Your task to perform on an android device: uninstall "Facebook Messenger" Image 0: 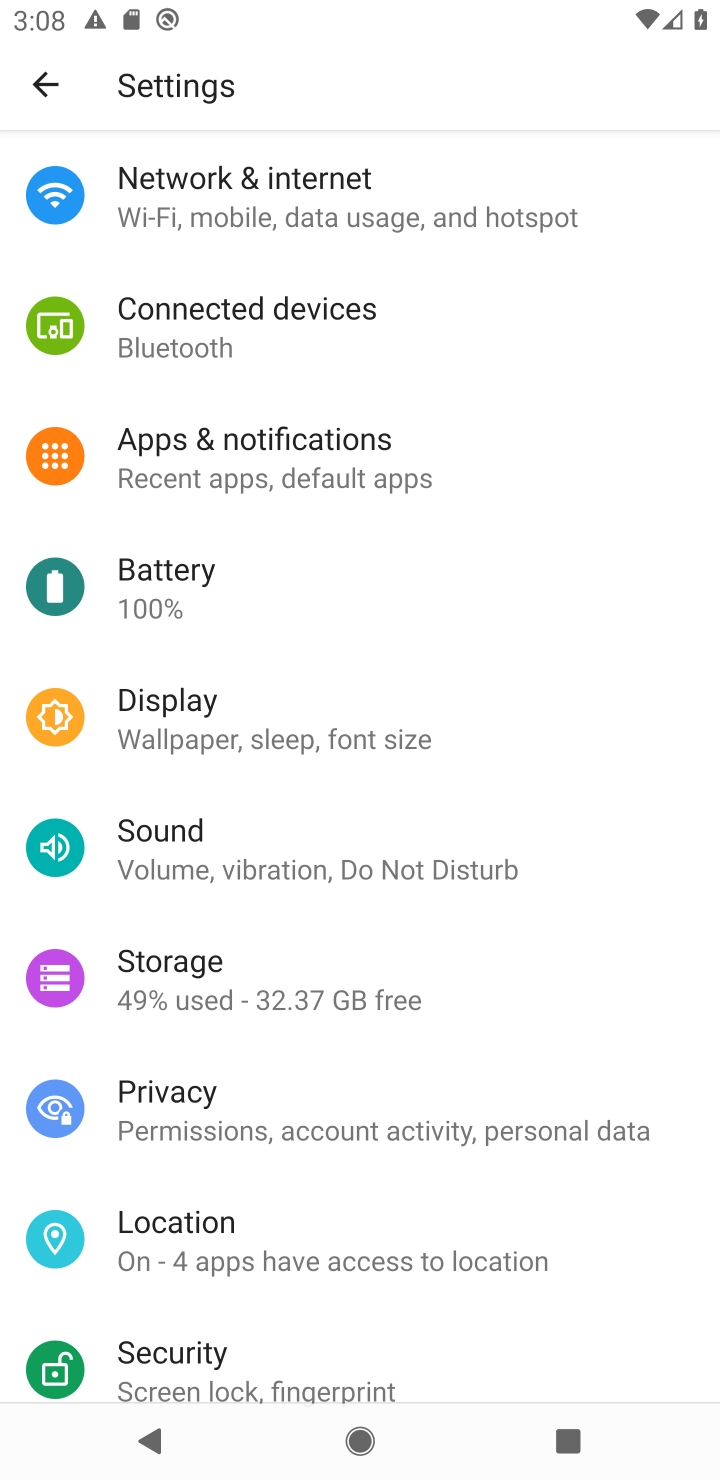
Step 0: click (35, 85)
Your task to perform on an android device: uninstall "Facebook Messenger" Image 1: 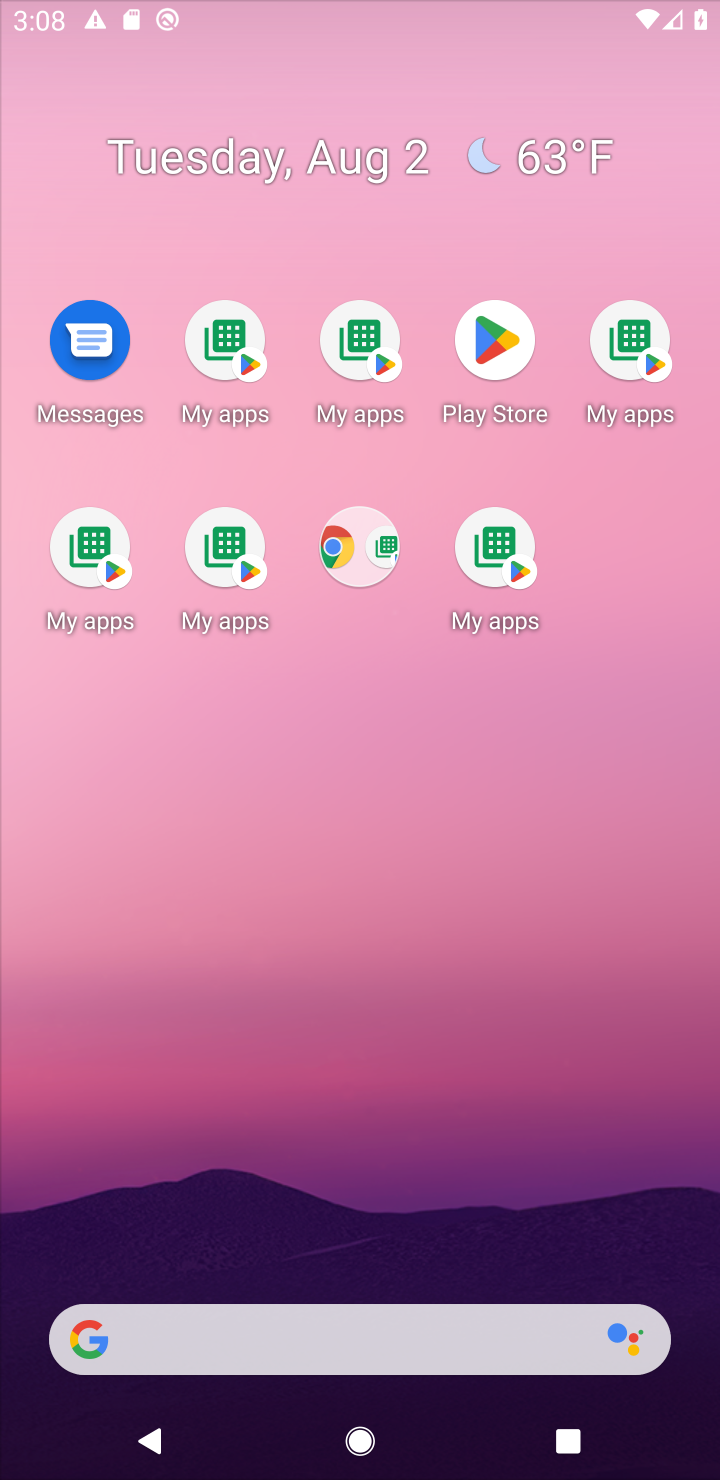
Step 1: drag from (190, 786) to (246, 374)
Your task to perform on an android device: uninstall "Facebook Messenger" Image 2: 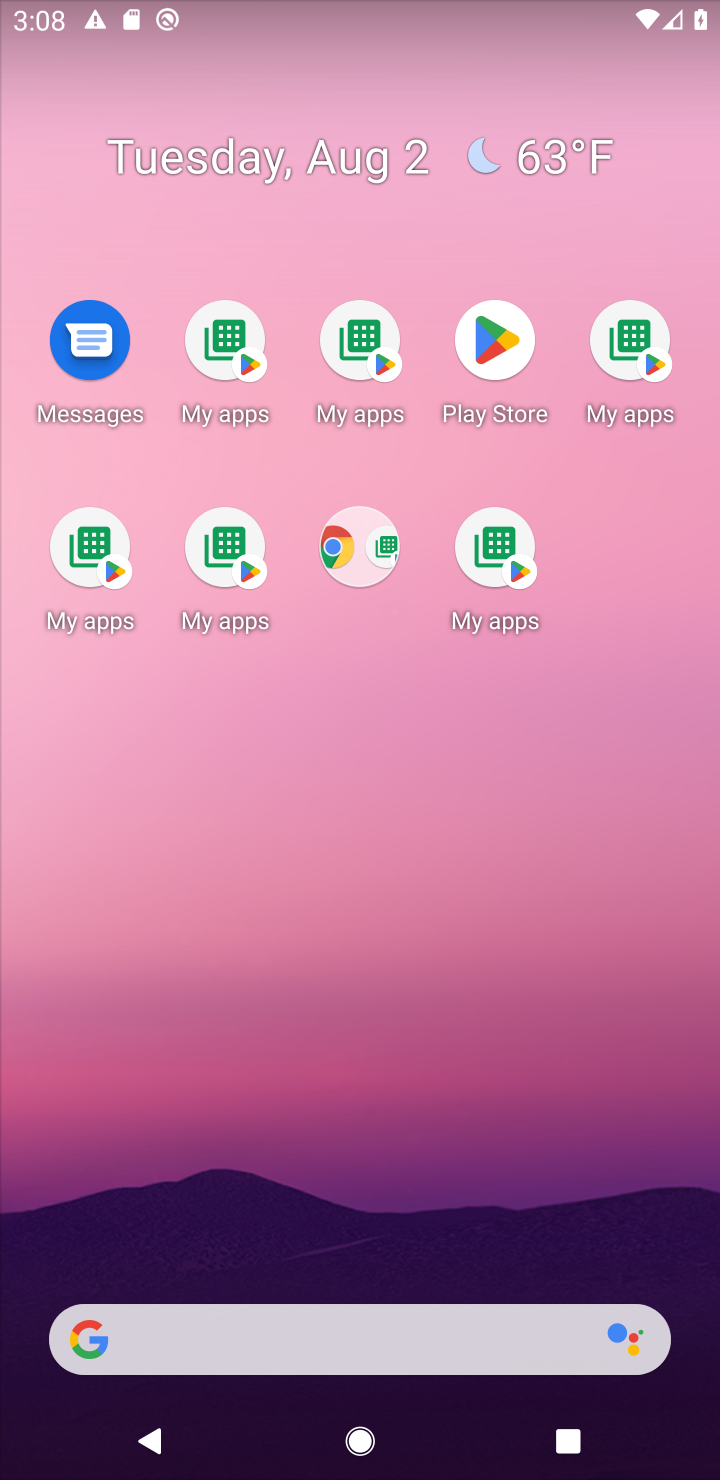
Step 2: click (365, 356)
Your task to perform on an android device: uninstall "Facebook Messenger" Image 3: 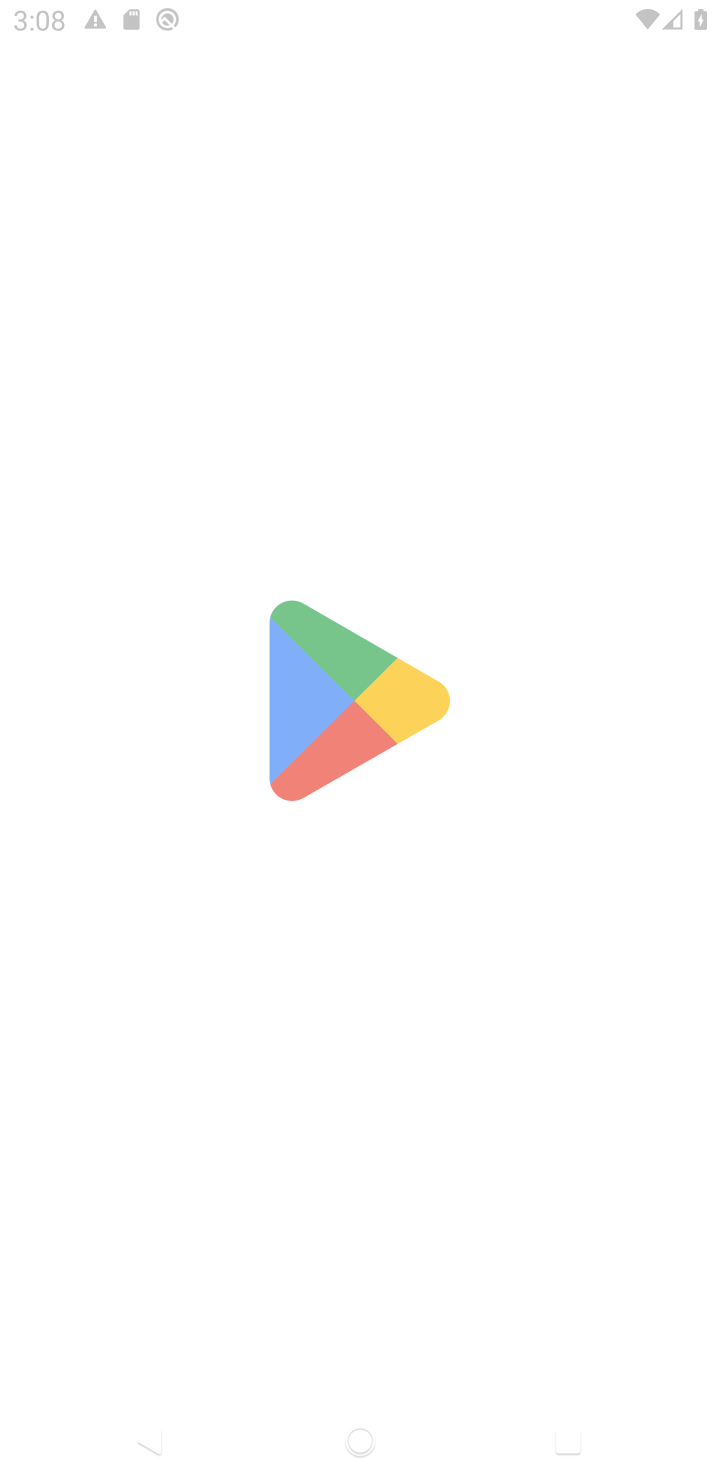
Step 3: click (495, 343)
Your task to perform on an android device: uninstall "Facebook Messenger" Image 4: 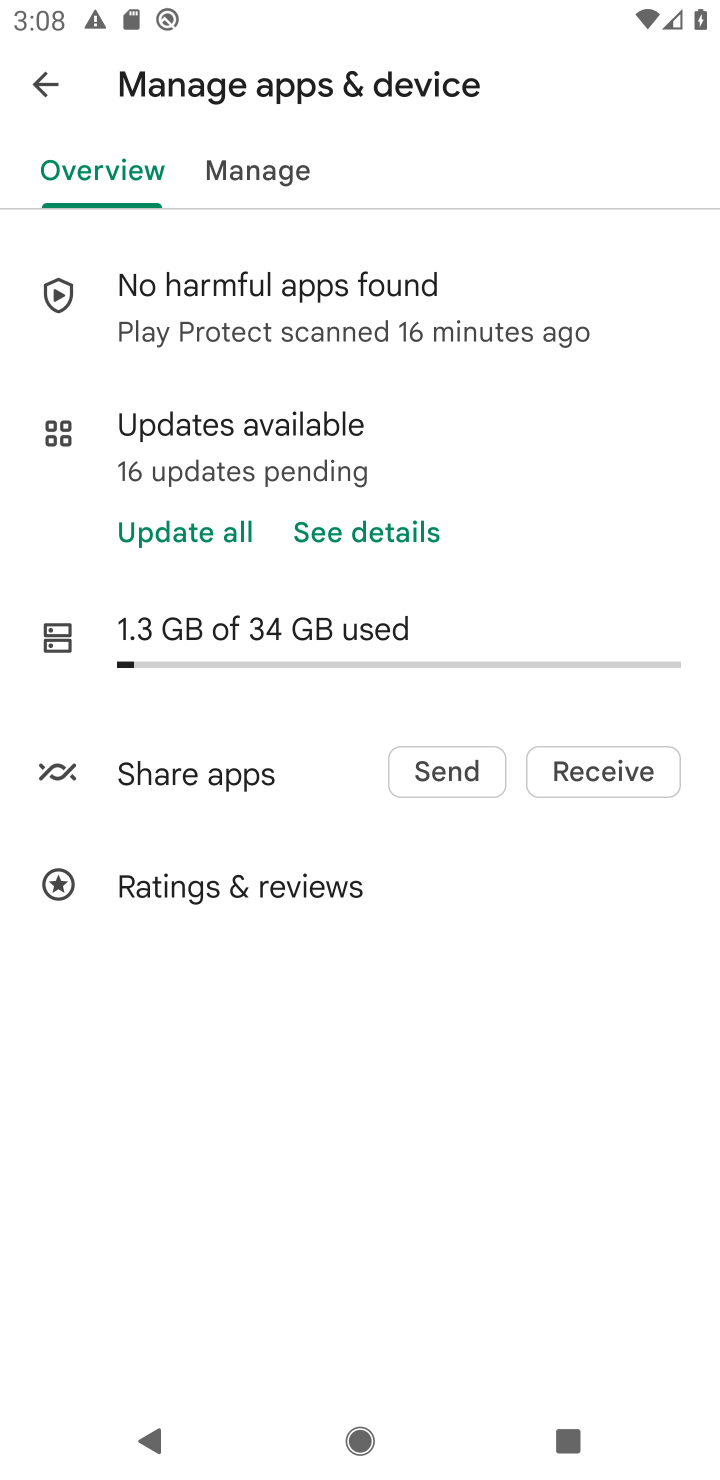
Step 4: click (44, 70)
Your task to perform on an android device: uninstall "Facebook Messenger" Image 5: 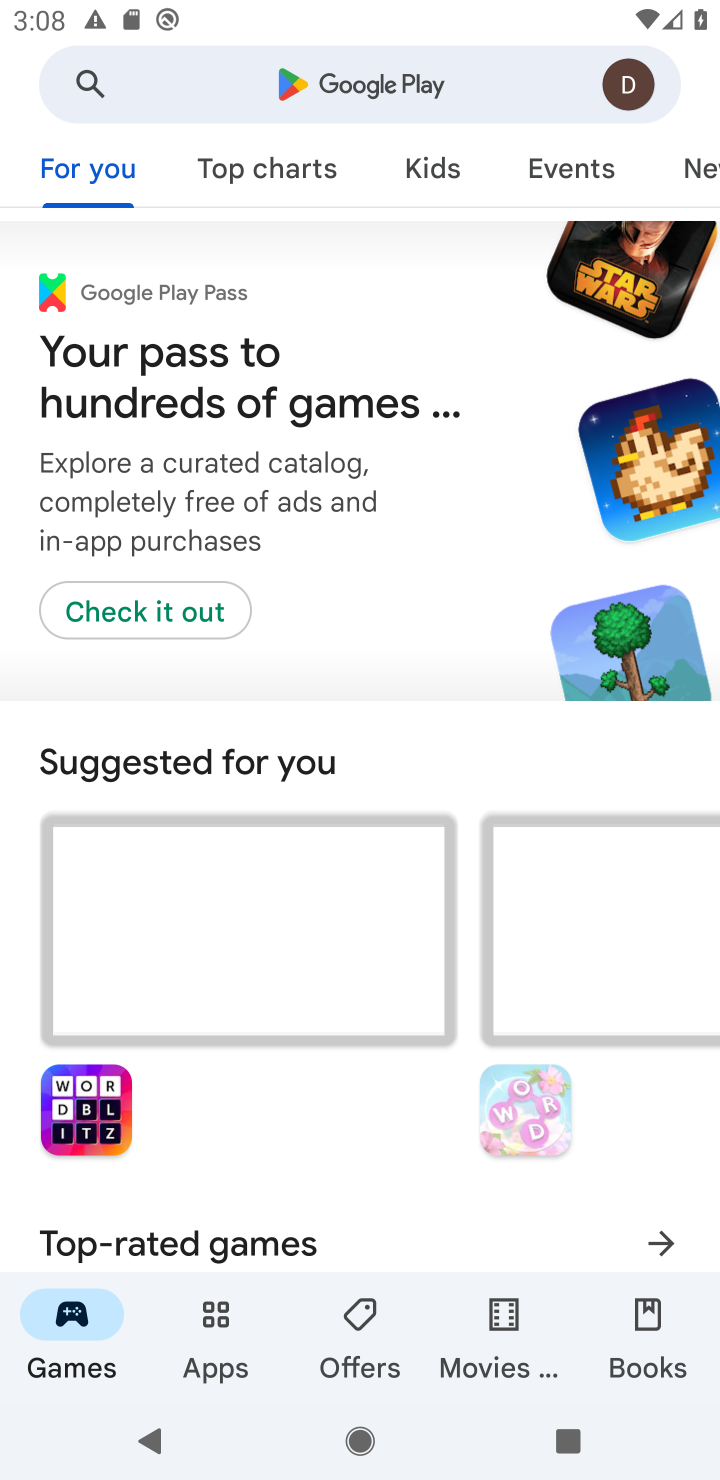
Step 5: click (360, 80)
Your task to perform on an android device: uninstall "Facebook Messenger" Image 6: 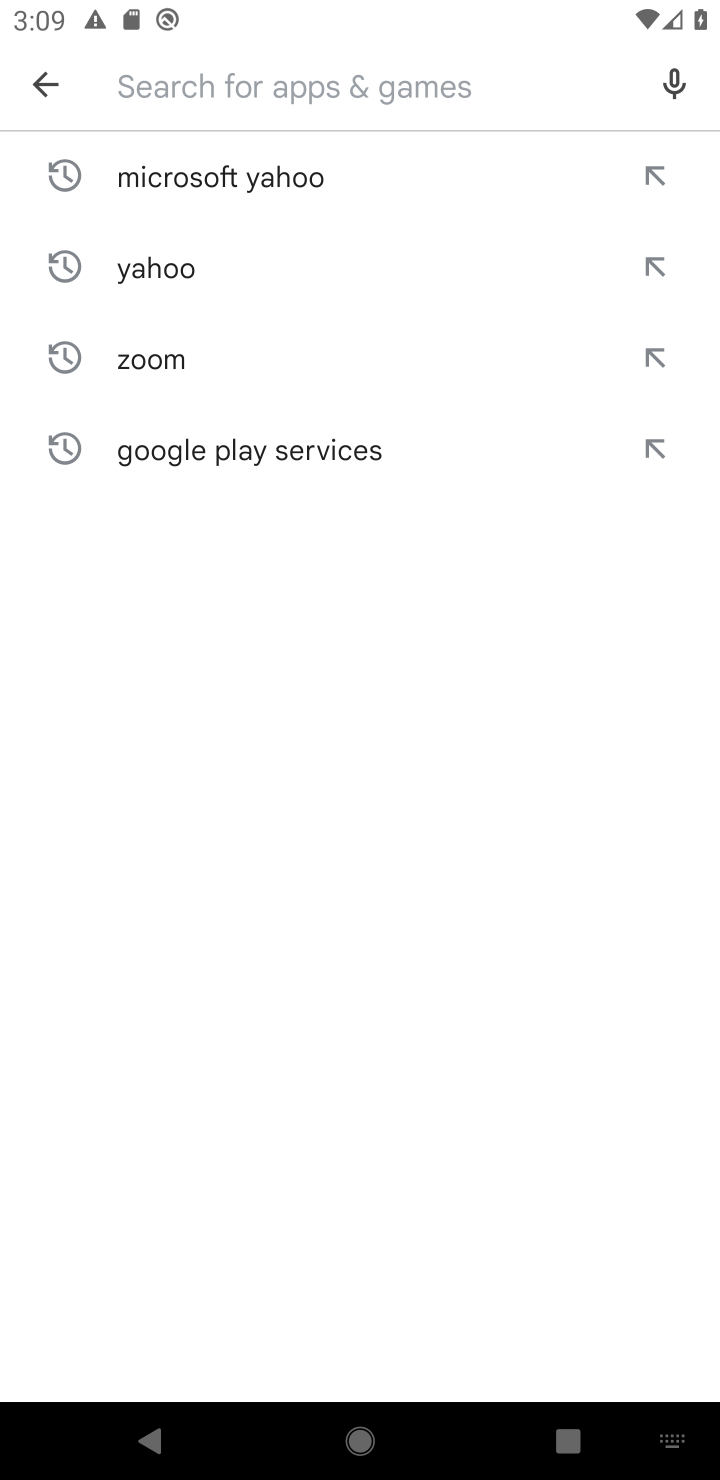
Step 6: type "facebook"
Your task to perform on an android device: uninstall "Facebook Messenger" Image 7: 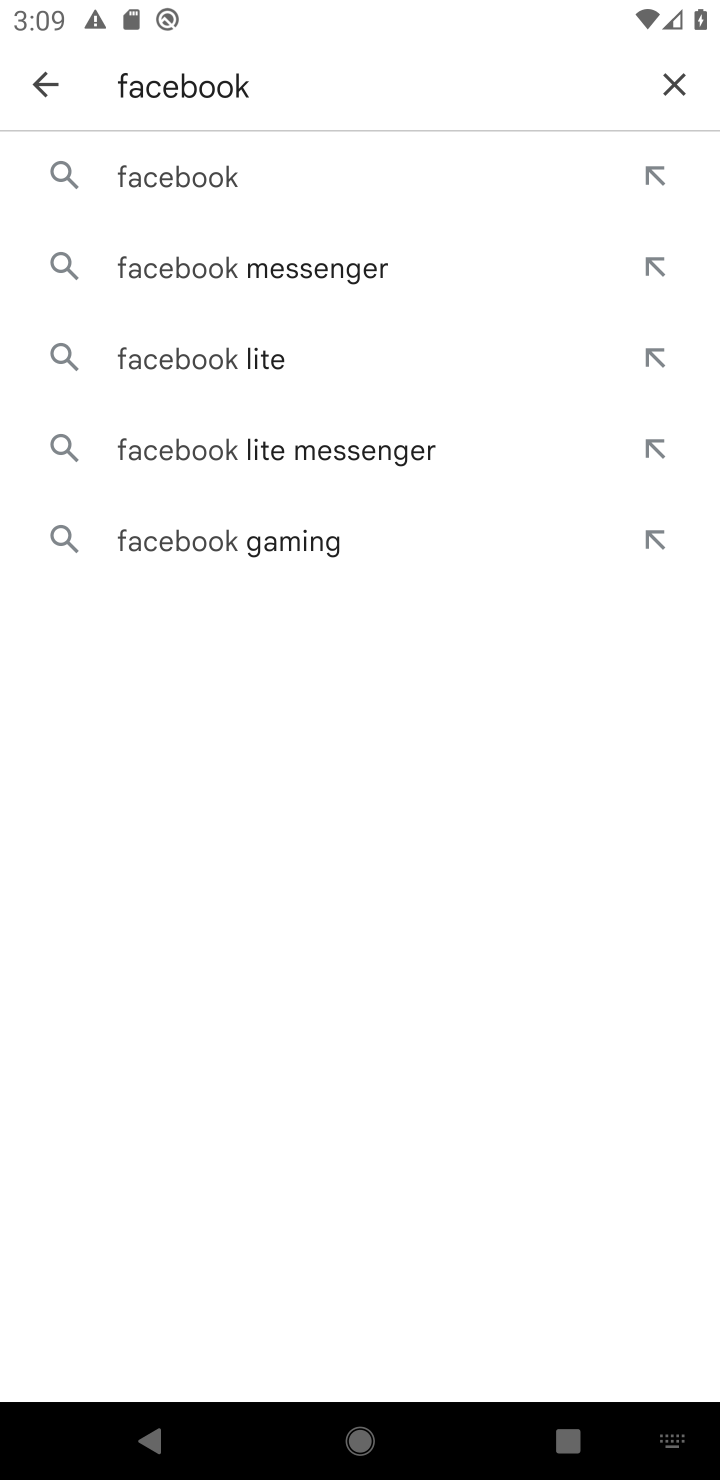
Step 7: click (167, 165)
Your task to perform on an android device: uninstall "Facebook Messenger" Image 8: 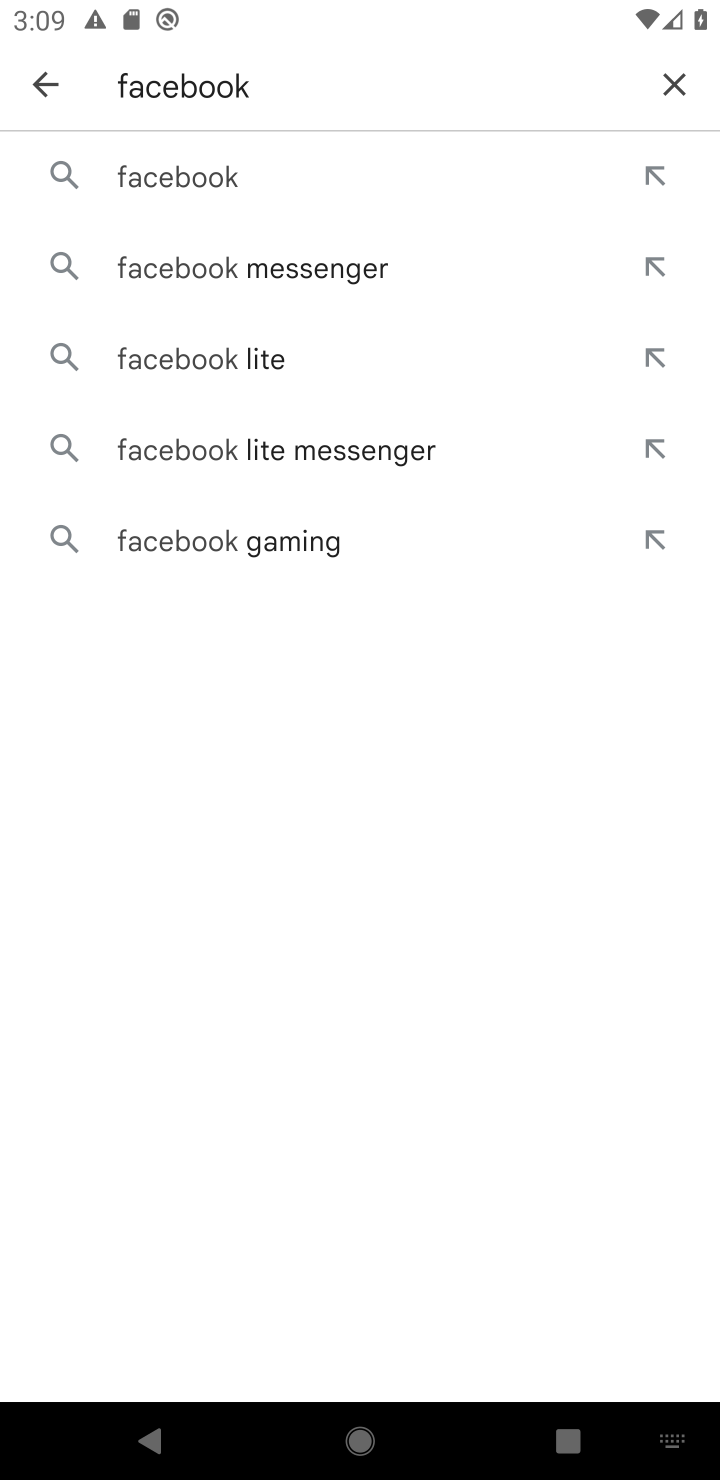
Step 8: click (168, 163)
Your task to perform on an android device: uninstall "Facebook Messenger" Image 9: 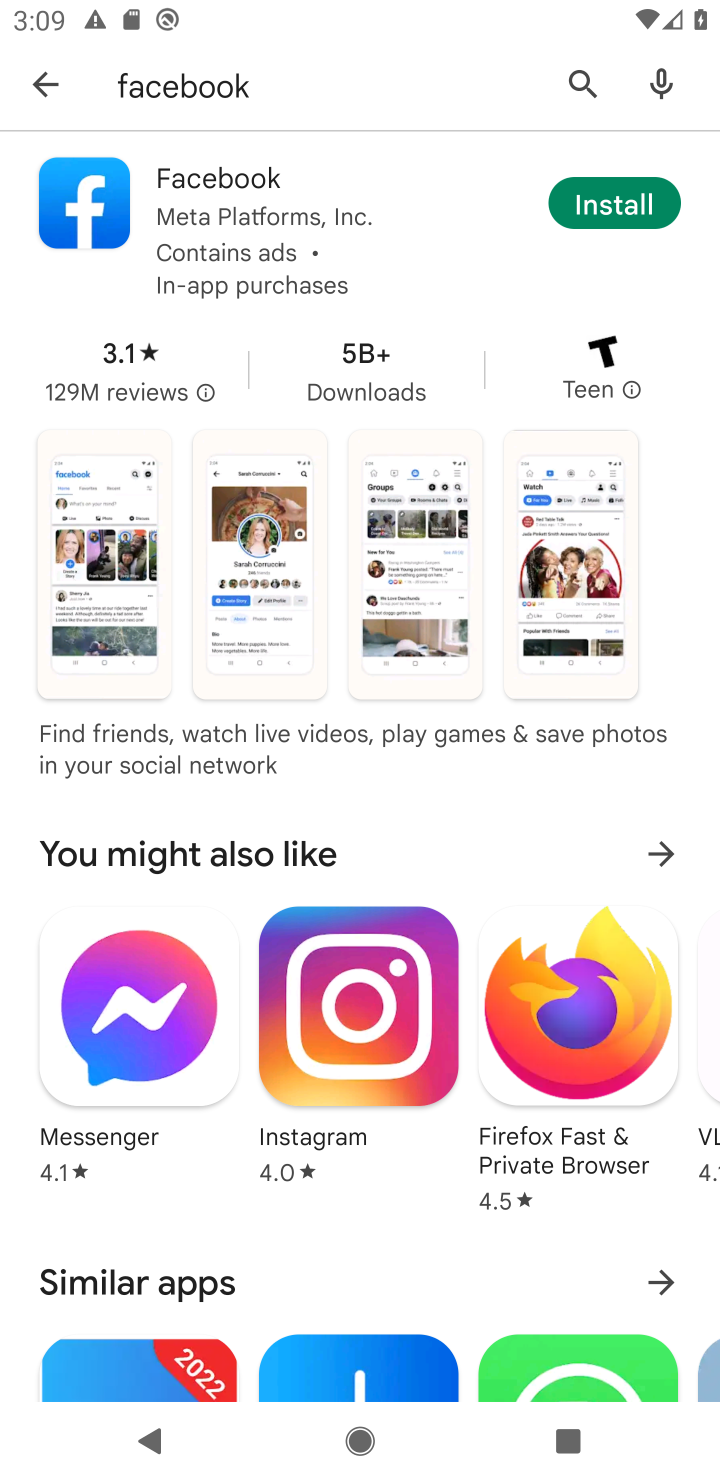
Step 9: task complete